Your task to perform on an android device: Open my contact list Image 0: 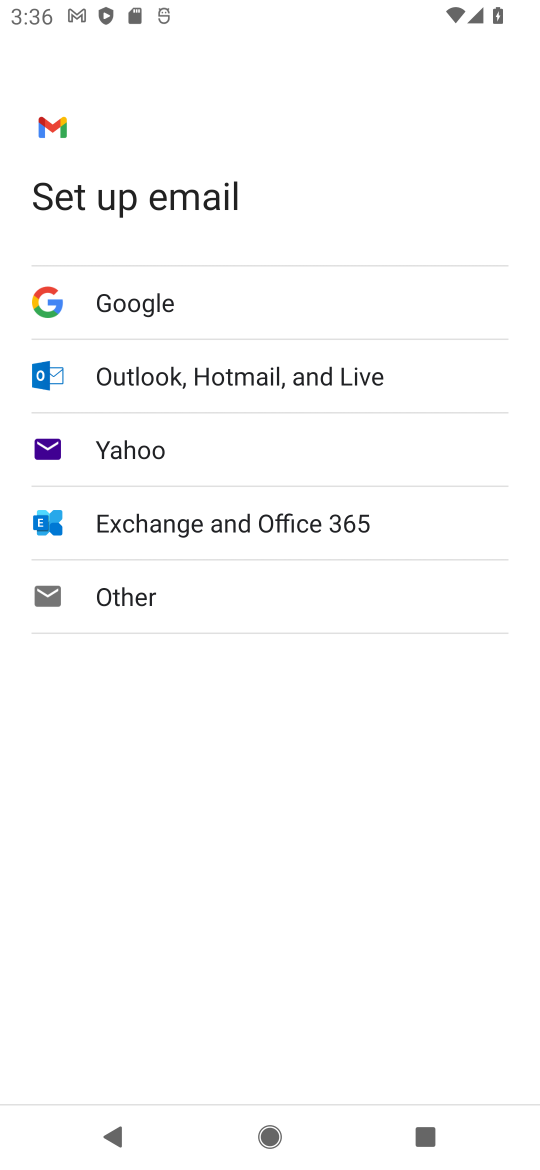
Step 0: press home button
Your task to perform on an android device: Open my contact list Image 1: 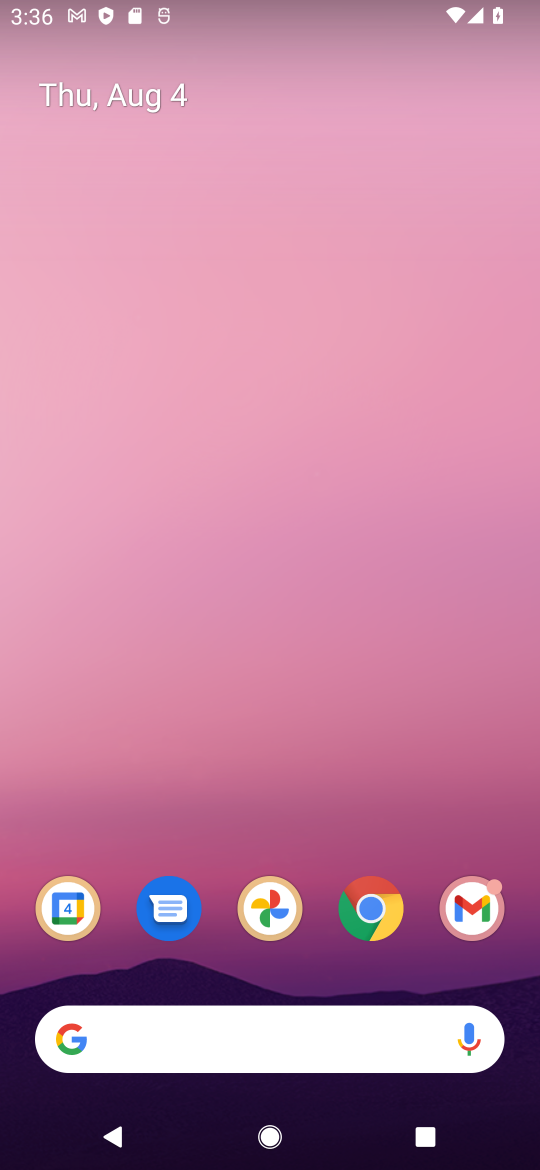
Step 1: drag from (227, 798) to (227, 227)
Your task to perform on an android device: Open my contact list Image 2: 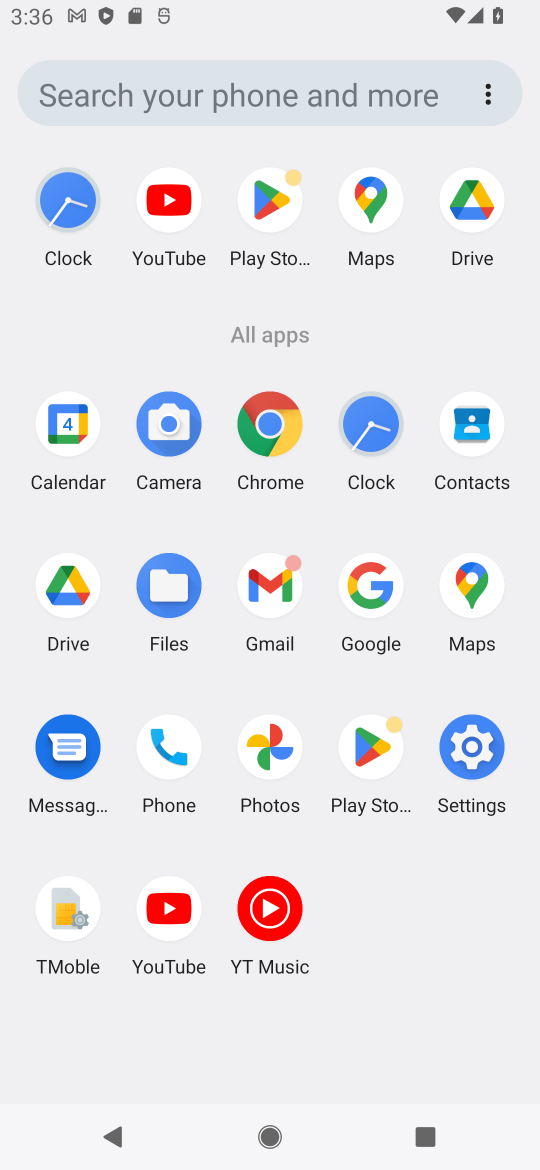
Step 2: click (484, 430)
Your task to perform on an android device: Open my contact list Image 3: 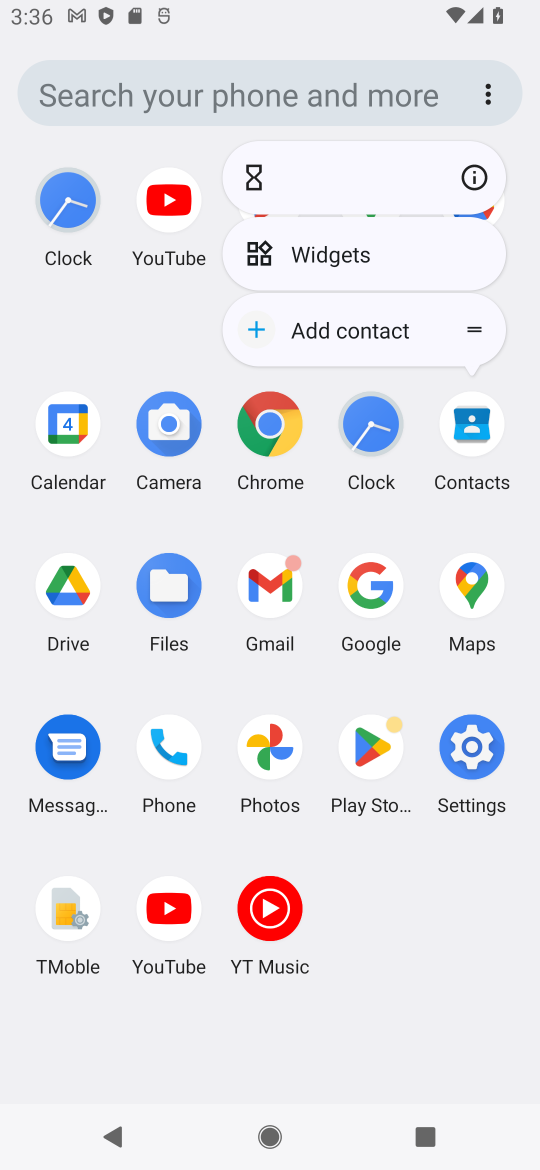
Step 3: click (475, 422)
Your task to perform on an android device: Open my contact list Image 4: 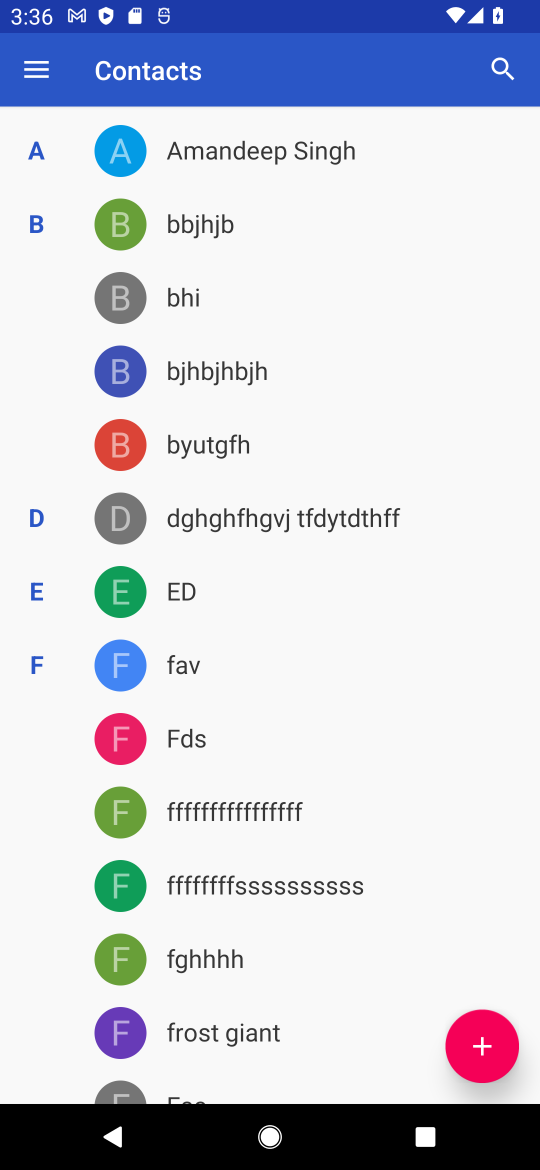
Step 4: task complete